Your task to perform on an android device: add a label to a message in the gmail app Image 0: 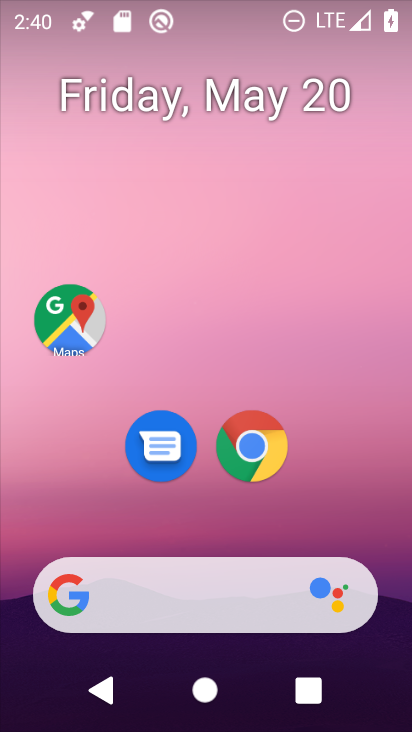
Step 0: drag from (388, 577) to (410, 541)
Your task to perform on an android device: add a label to a message in the gmail app Image 1: 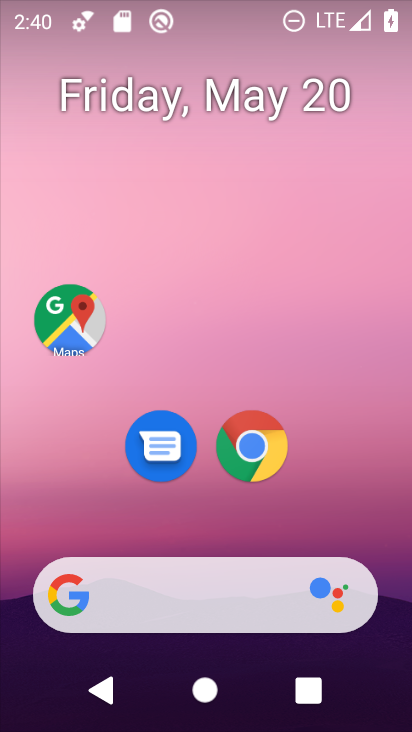
Step 1: drag from (386, 566) to (409, 332)
Your task to perform on an android device: add a label to a message in the gmail app Image 2: 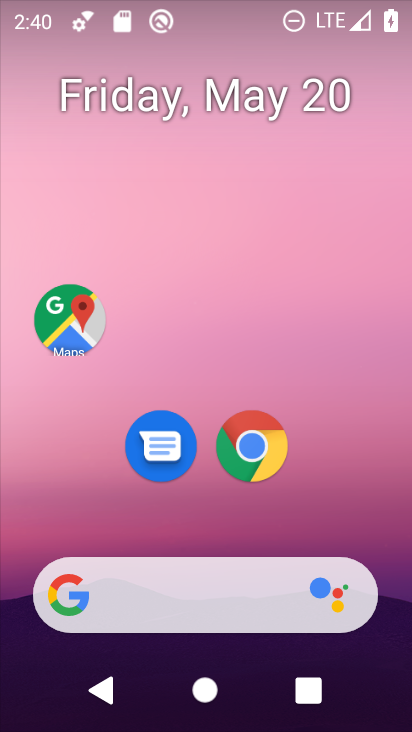
Step 2: drag from (391, 593) to (411, 141)
Your task to perform on an android device: add a label to a message in the gmail app Image 3: 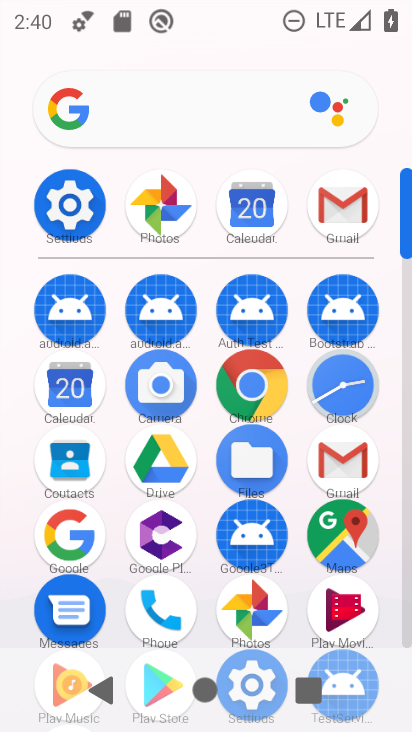
Step 3: click (355, 207)
Your task to perform on an android device: add a label to a message in the gmail app Image 4: 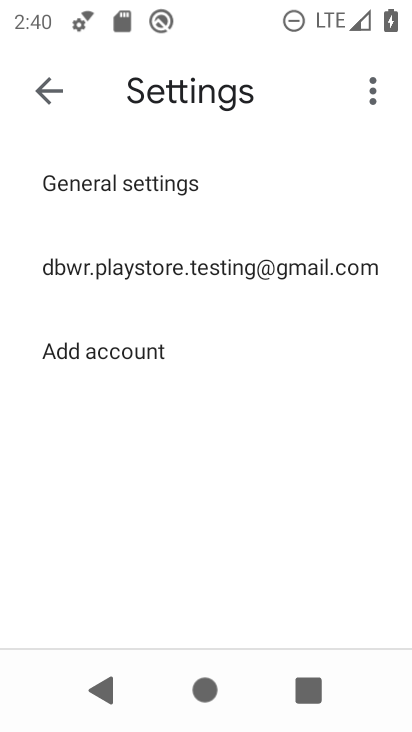
Step 4: click (43, 102)
Your task to perform on an android device: add a label to a message in the gmail app Image 5: 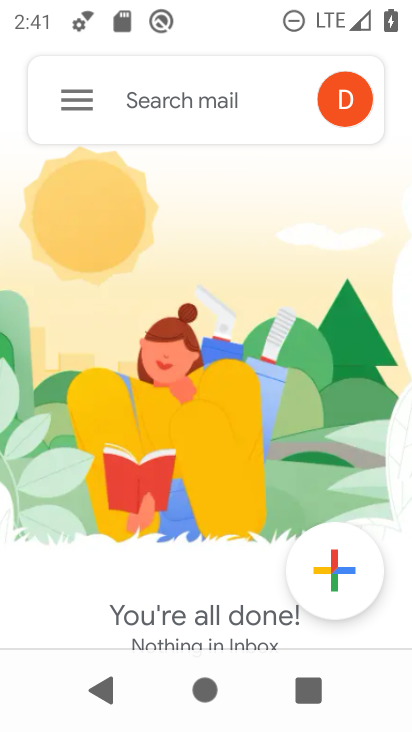
Step 5: click (69, 98)
Your task to perform on an android device: add a label to a message in the gmail app Image 6: 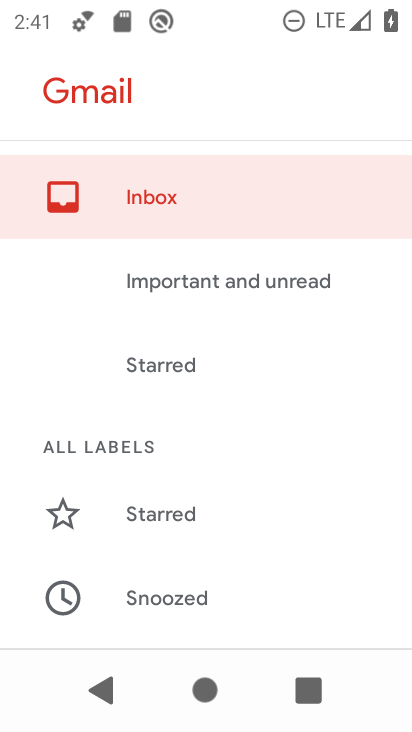
Step 6: drag from (218, 544) to (201, 133)
Your task to perform on an android device: add a label to a message in the gmail app Image 7: 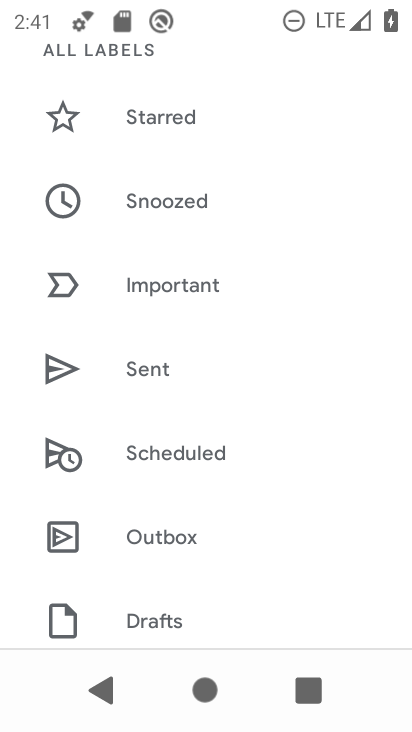
Step 7: drag from (168, 521) to (180, 170)
Your task to perform on an android device: add a label to a message in the gmail app Image 8: 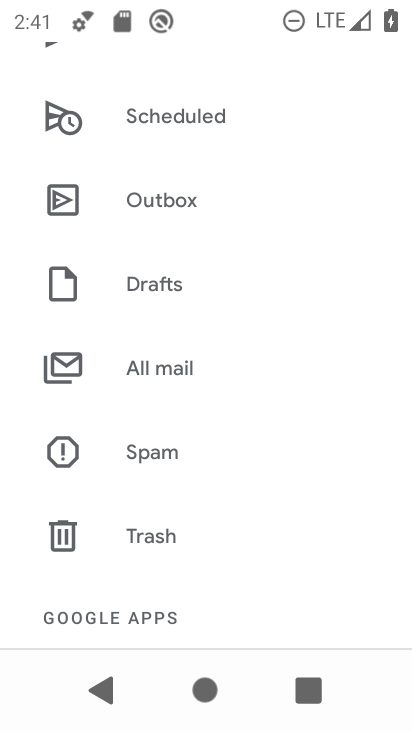
Step 8: click (129, 372)
Your task to perform on an android device: add a label to a message in the gmail app Image 9: 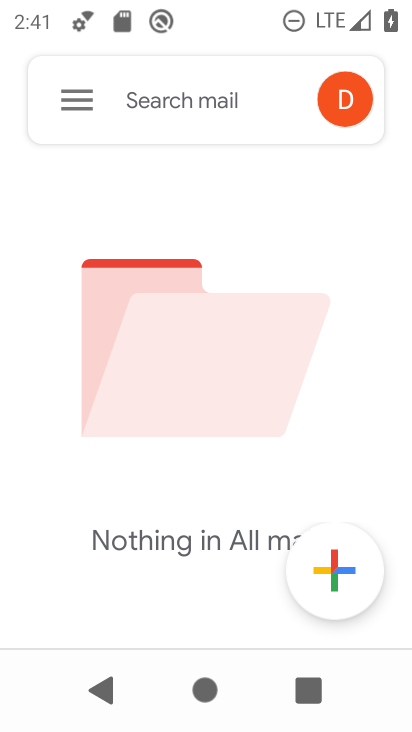
Step 9: task complete